Your task to perform on an android device: Find coffee shops on Maps Image 0: 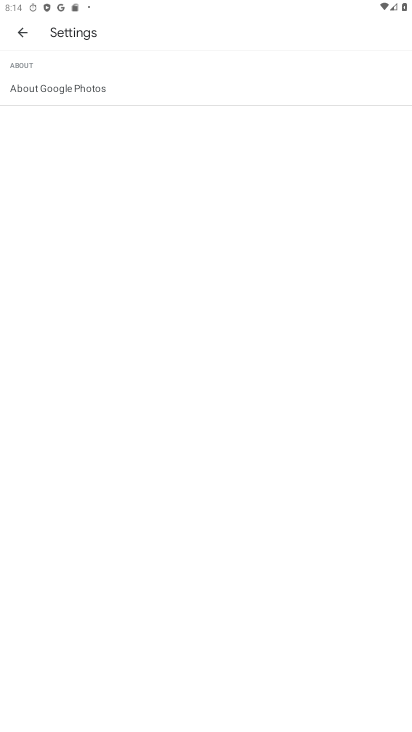
Step 0: click (23, 27)
Your task to perform on an android device: Find coffee shops on Maps Image 1: 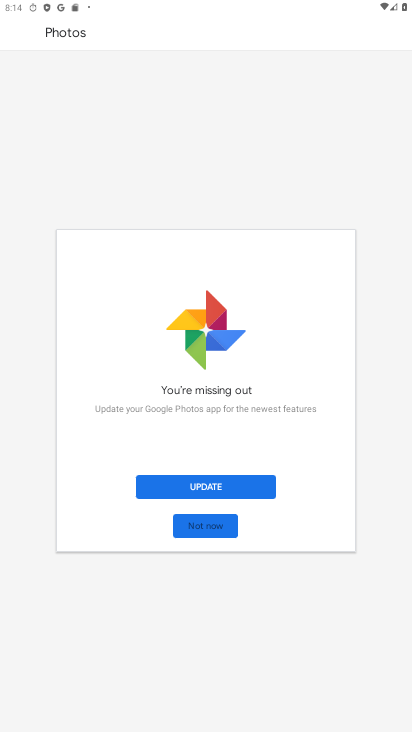
Step 1: click (204, 531)
Your task to perform on an android device: Find coffee shops on Maps Image 2: 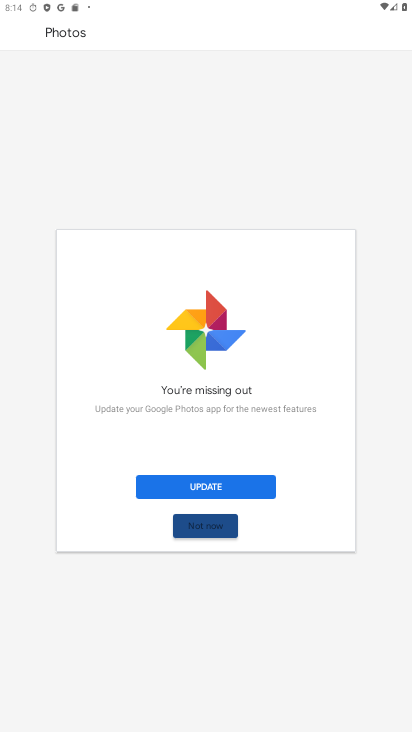
Step 2: click (204, 531)
Your task to perform on an android device: Find coffee shops on Maps Image 3: 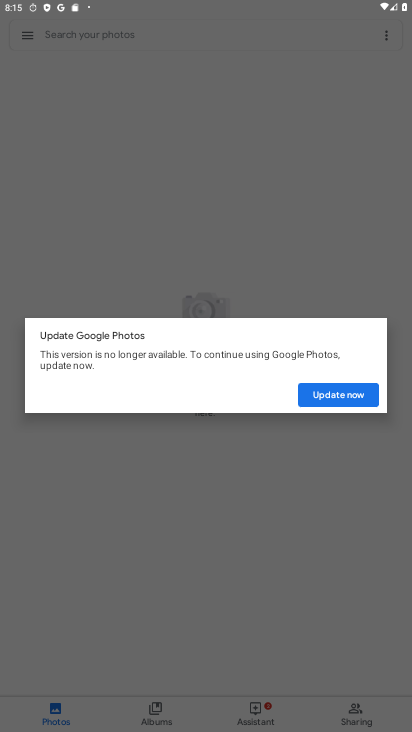
Step 3: press back button
Your task to perform on an android device: Find coffee shops on Maps Image 4: 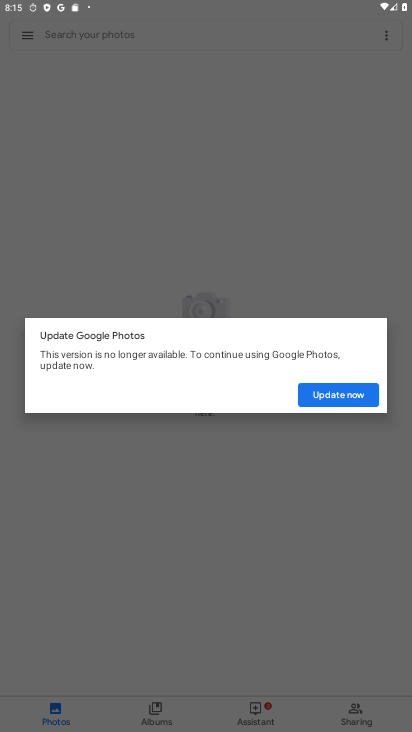
Step 4: press back button
Your task to perform on an android device: Find coffee shops on Maps Image 5: 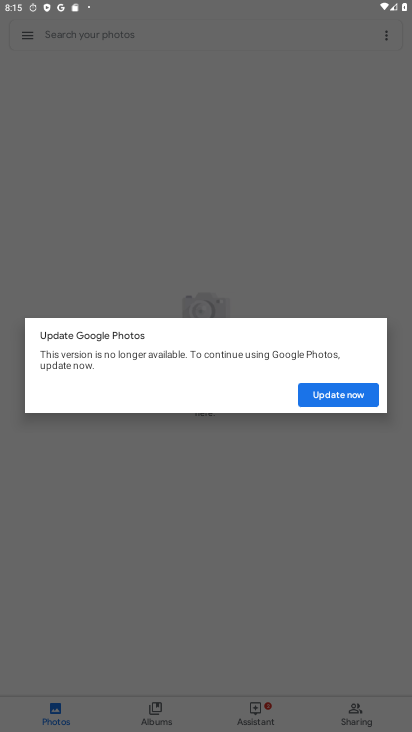
Step 5: press back button
Your task to perform on an android device: Find coffee shops on Maps Image 6: 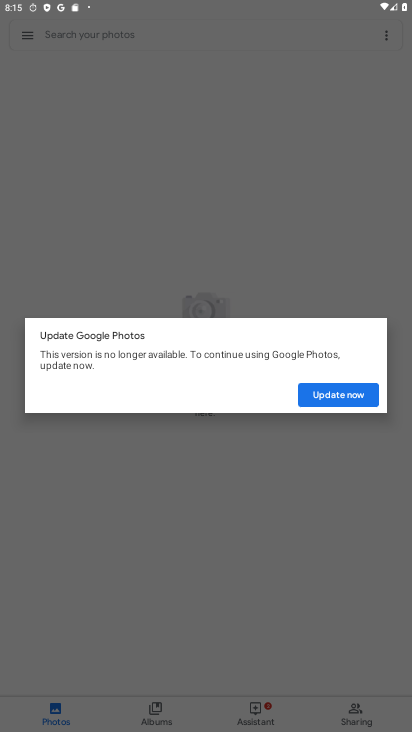
Step 6: press back button
Your task to perform on an android device: Find coffee shops on Maps Image 7: 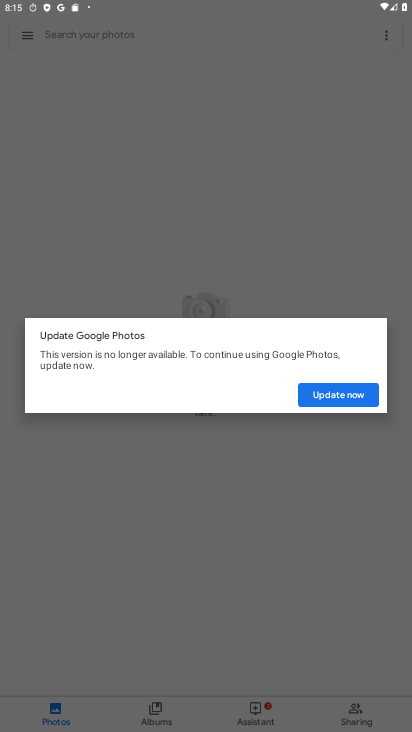
Step 7: press back button
Your task to perform on an android device: Find coffee shops on Maps Image 8: 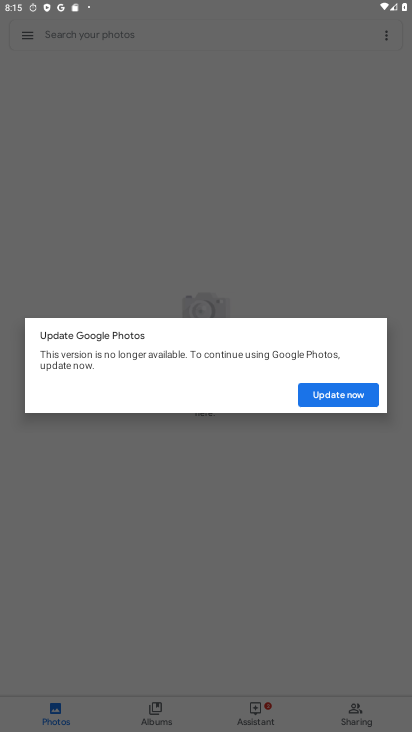
Step 8: press back button
Your task to perform on an android device: Find coffee shops on Maps Image 9: 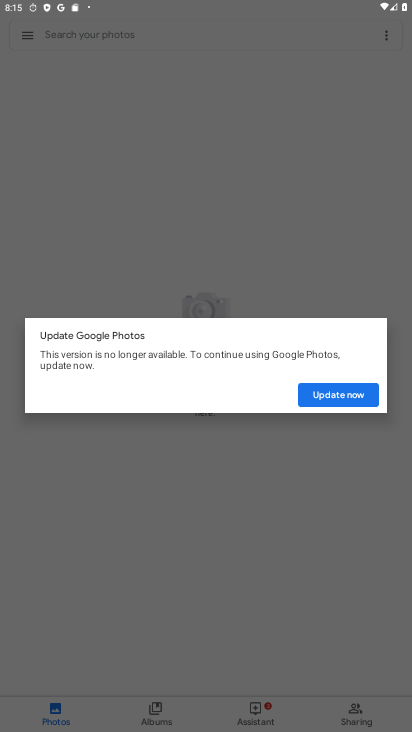
Step 9: press back button
Your task to perform on an android device: Find coffee shops on Maps Image 10: 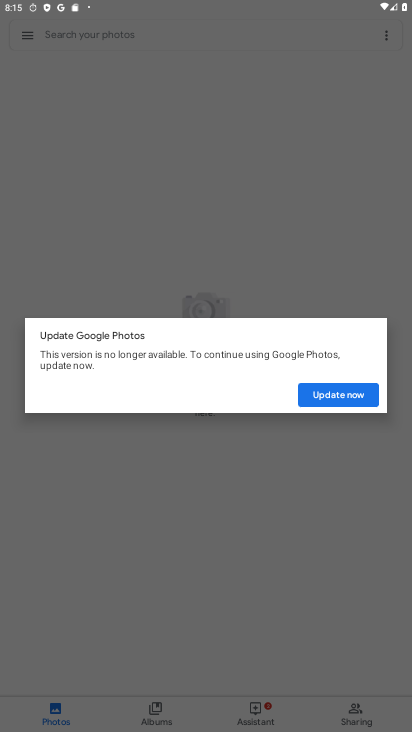
Step 10: press back button
Your task to perform on an android device: Find coffee shops on Maps Image 11: 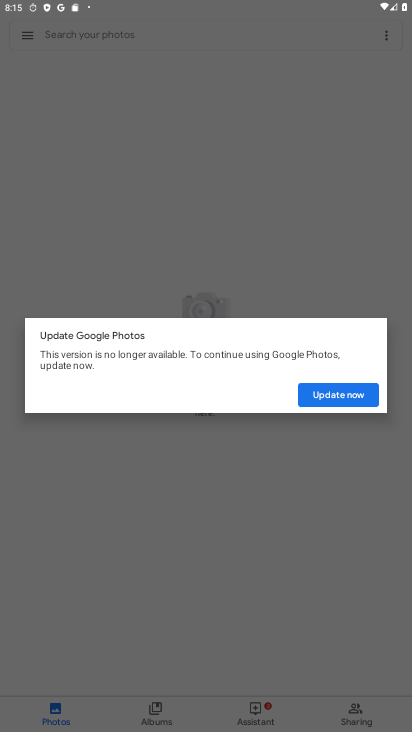
Step 11: press back button
Your task to perform on an android device: Find coffee shops on Maps Image 12: 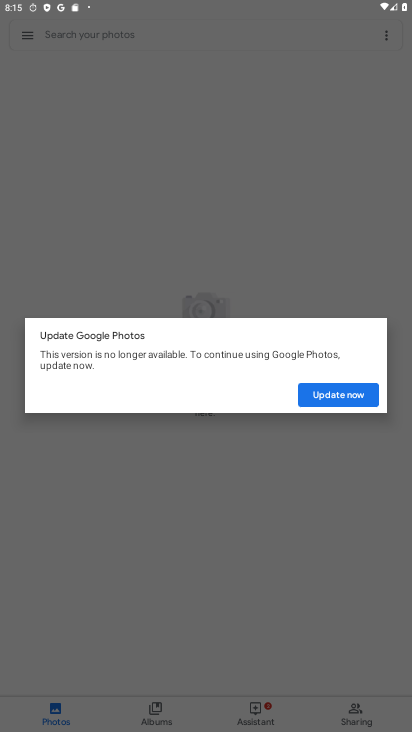
Step 12: press back button
Your task to perform on an android device: Find coffee shops on Maps Image 13: 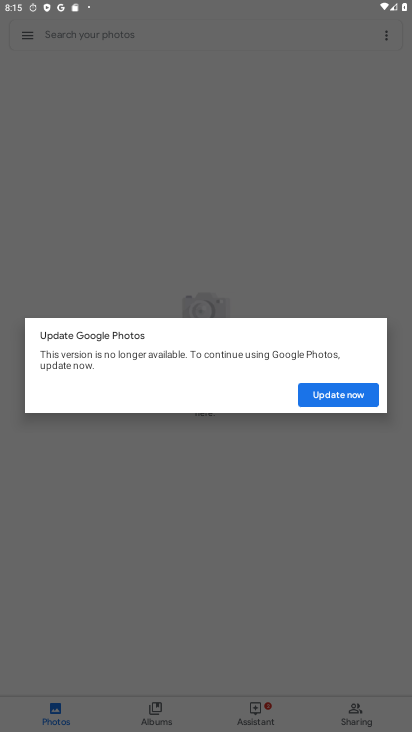
Step 13: press home button
Your task to perform on an android device: Find coffee shops on Maps Image 14: 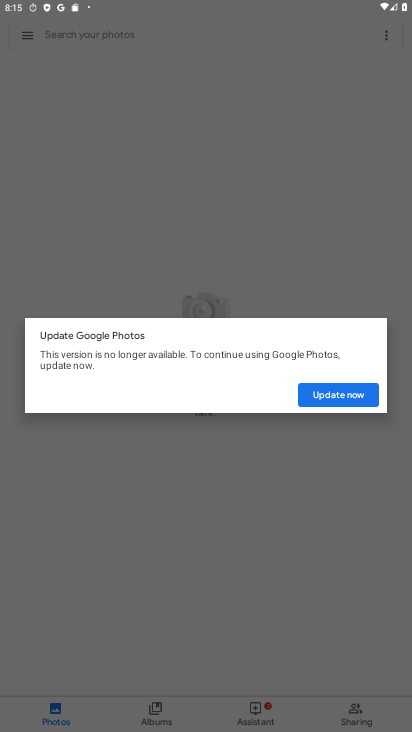
Step 14: press home button
Your task to perform on an android device: Find coffee shops on Maps Image 15: 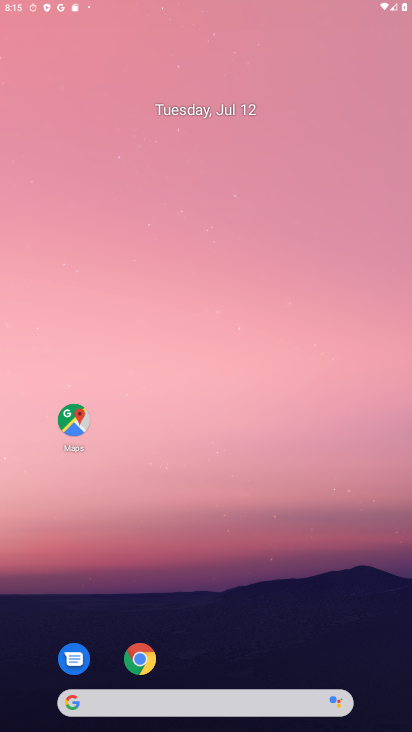
Step 15: press home button
Your task to perform on an android device: Find coffee shops on Maps Image 16: 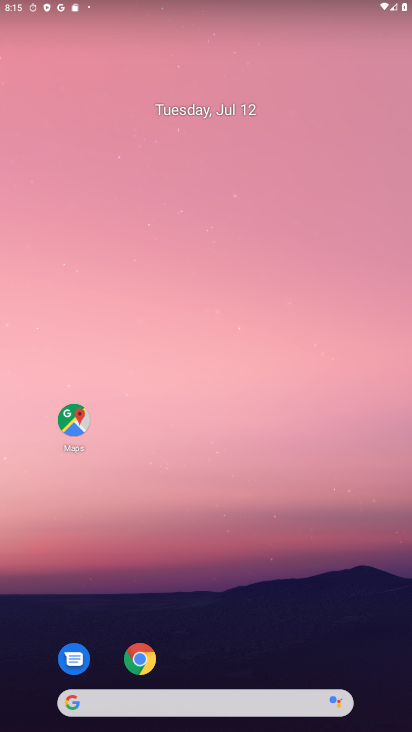
Step 16: drag from (182, 656) to (176, 104)
Your task to perform on an android device: Find coffee shops on Maps Image 17: 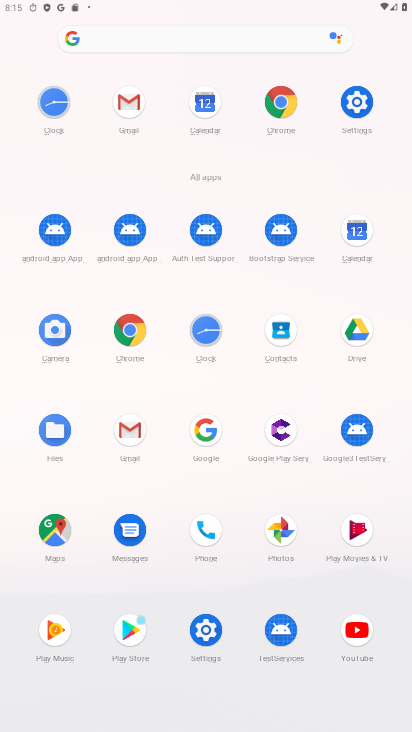
Step 17: click (53, 522)
Your task to perform on an android device: Find coffee shops on Maps Image 18: 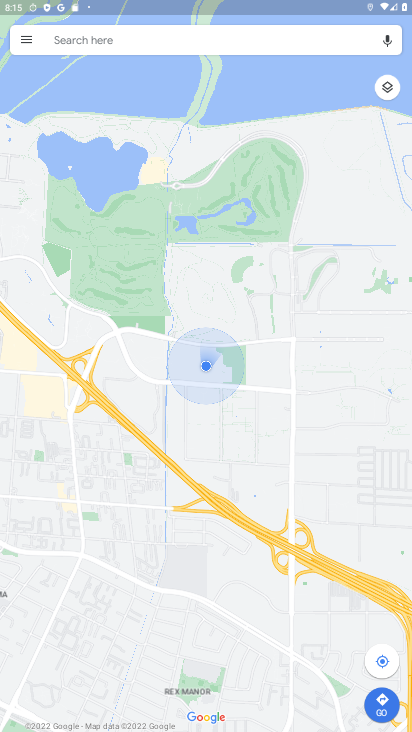
Step 18: click (68, 36)
Your task to perform on an android device: Find coffee shops on Maps Image 19: 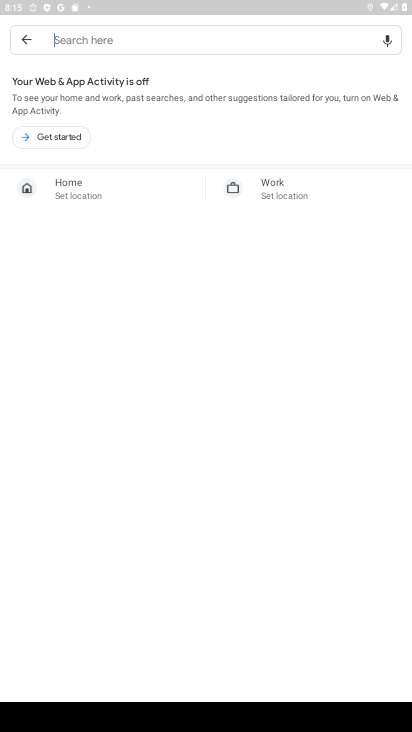
Step 19: type "coffee"
Your task to perform on an android device: Find coffee shops on Maps Image 20: 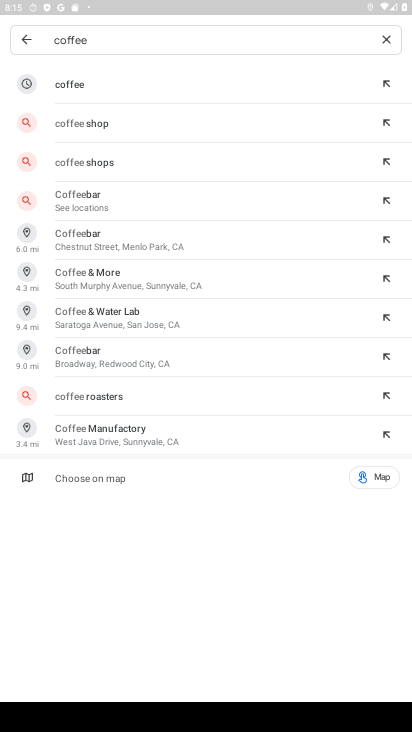
Step 20: click (91, 89)
Your task to perform on an android device: Find coffee shops on Maps Image 21: 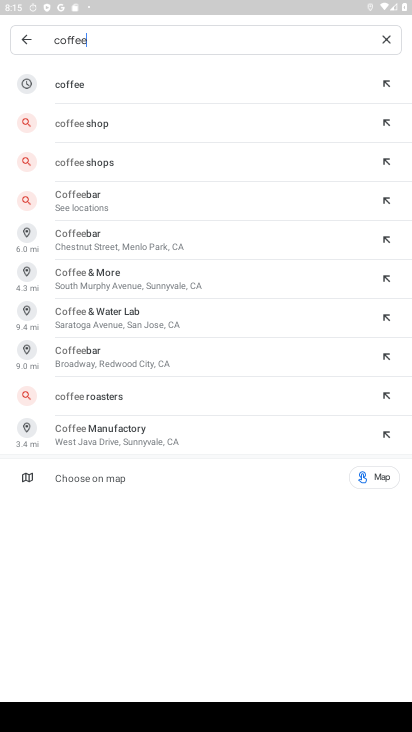
Step 21: click (88, 85)
Your task to perform on an android device: Find coffee shops on Maps Image 22: 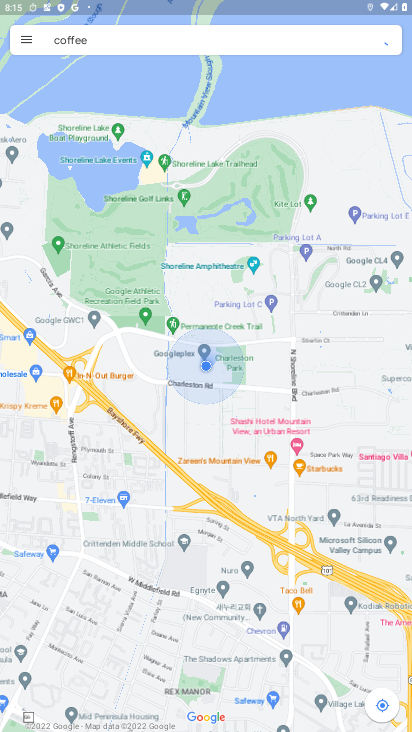
Step 22: task complete